Your task to perform on an android device: Search for apple airpods pro on walmart, select the first entry, add it to the cart, then select checkout. Image 0: 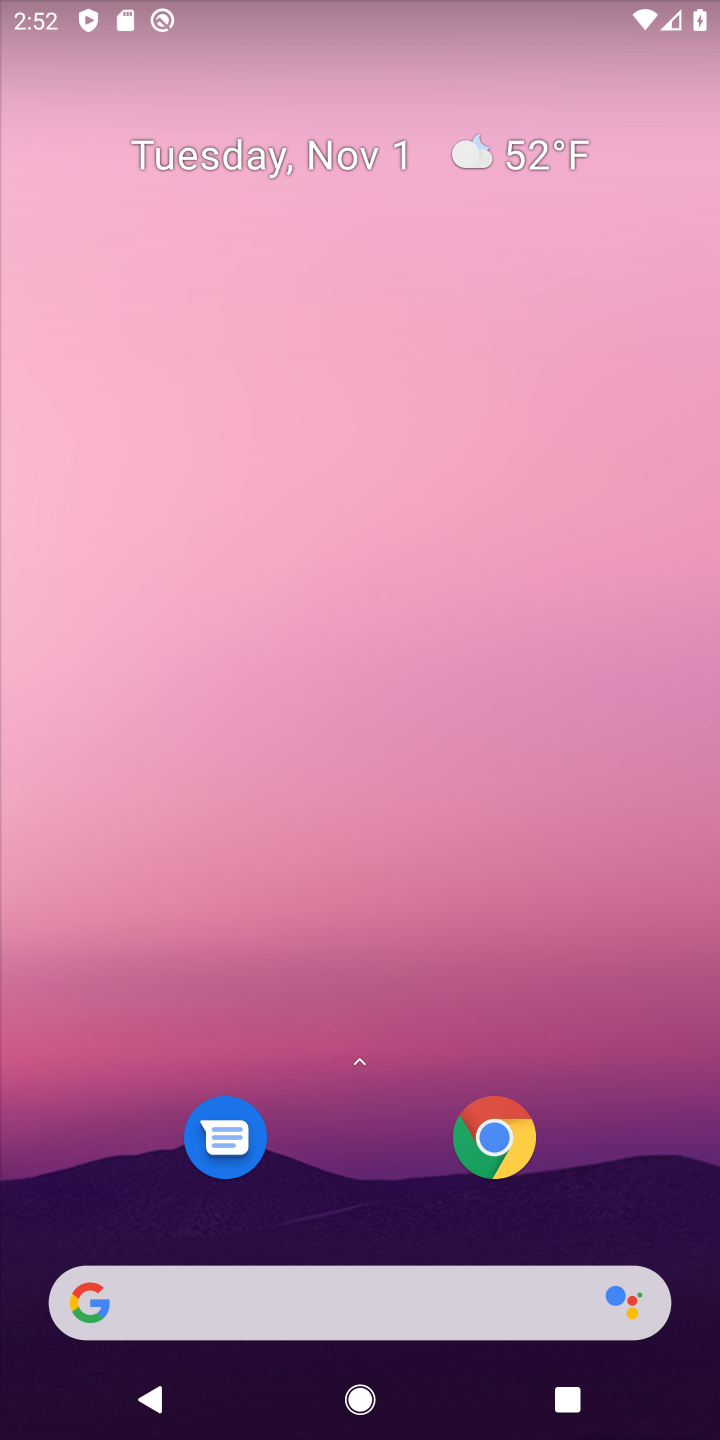
Step 0: click (321, 1337)
Your task to perform on an android device: Search for apple airpods pro on walmart, select the first entry, add it to the cart, then select checkout. Image 1: 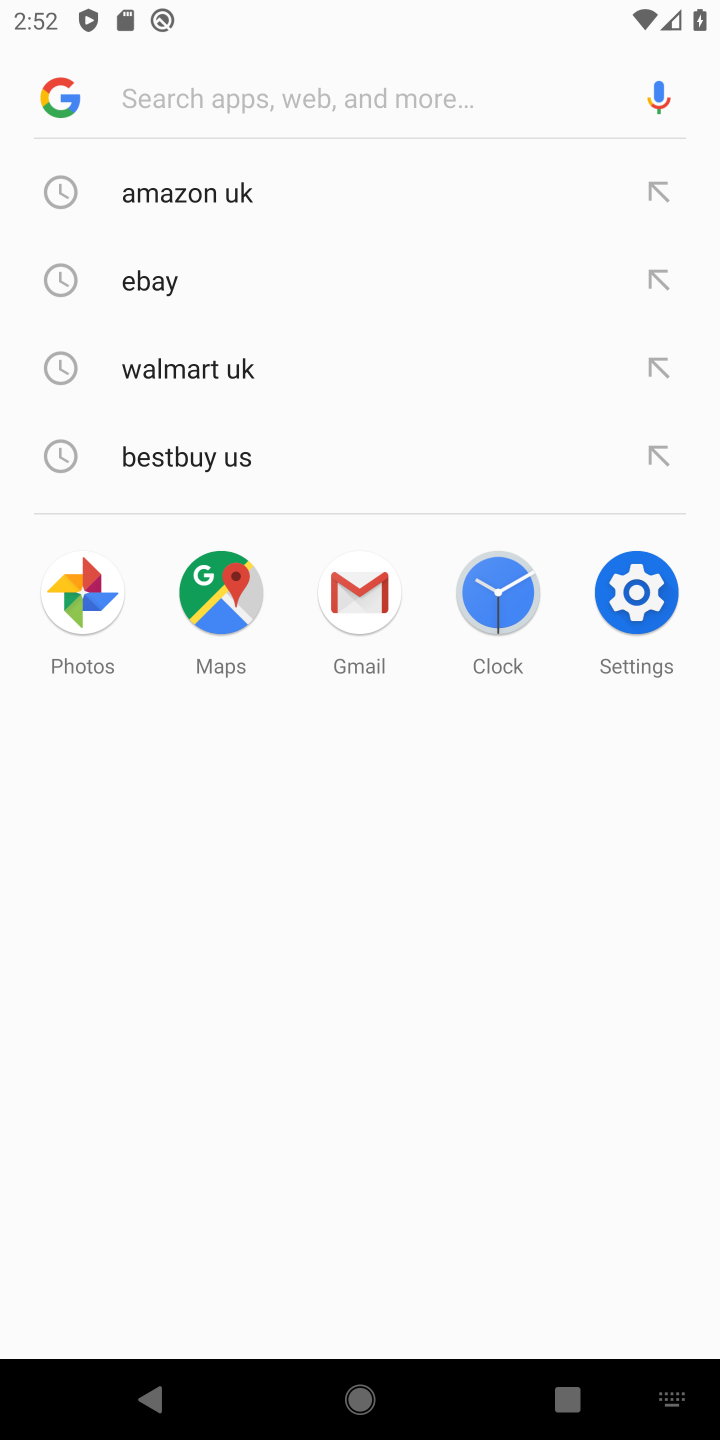
Step 1: click (346, 378)
Your task to perform on an android device: Search for apple airpods pro on walmart, select the first entry, add it to the cart, then select checkout. Image 2: 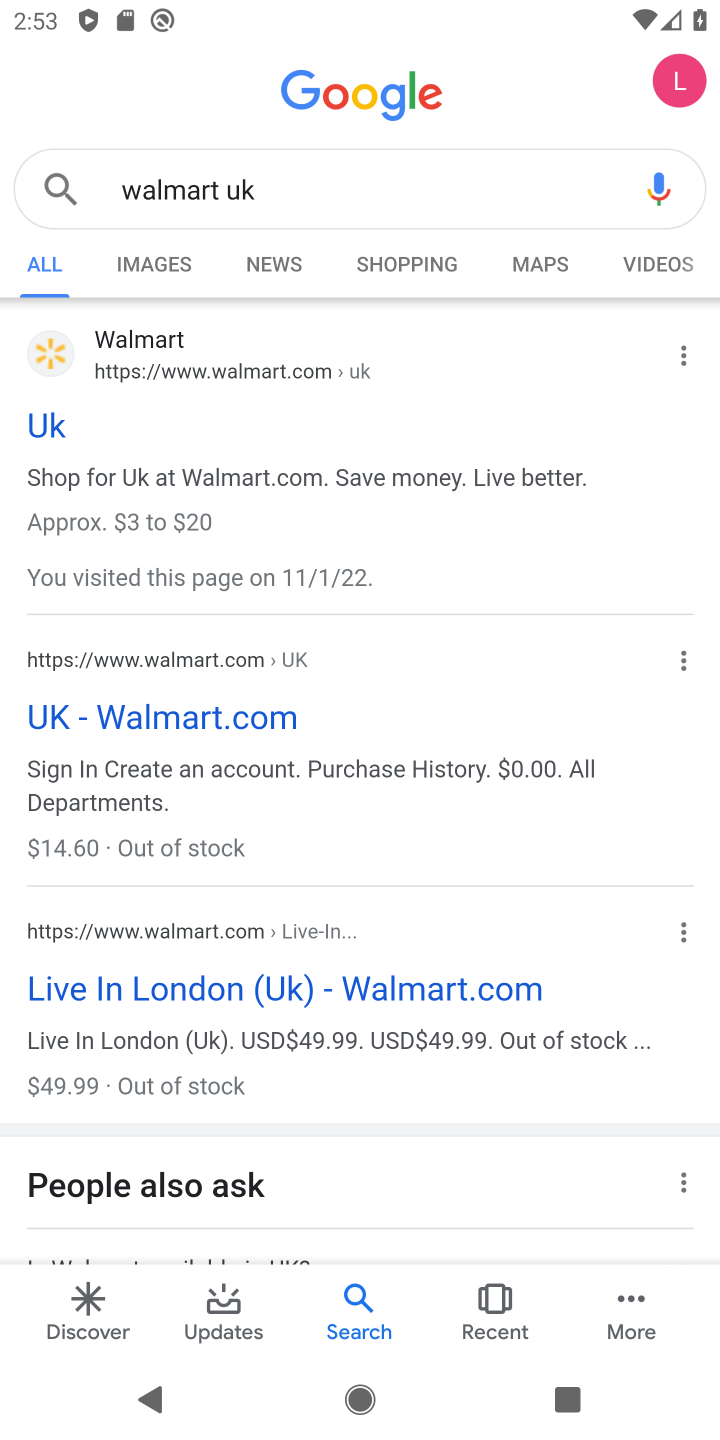
Step 2: click (61, 426)
Your task to perform on an android device: Search for apple airpods pro on walmart, select the first entry, add it to the cart, then select checkout. Image 3: 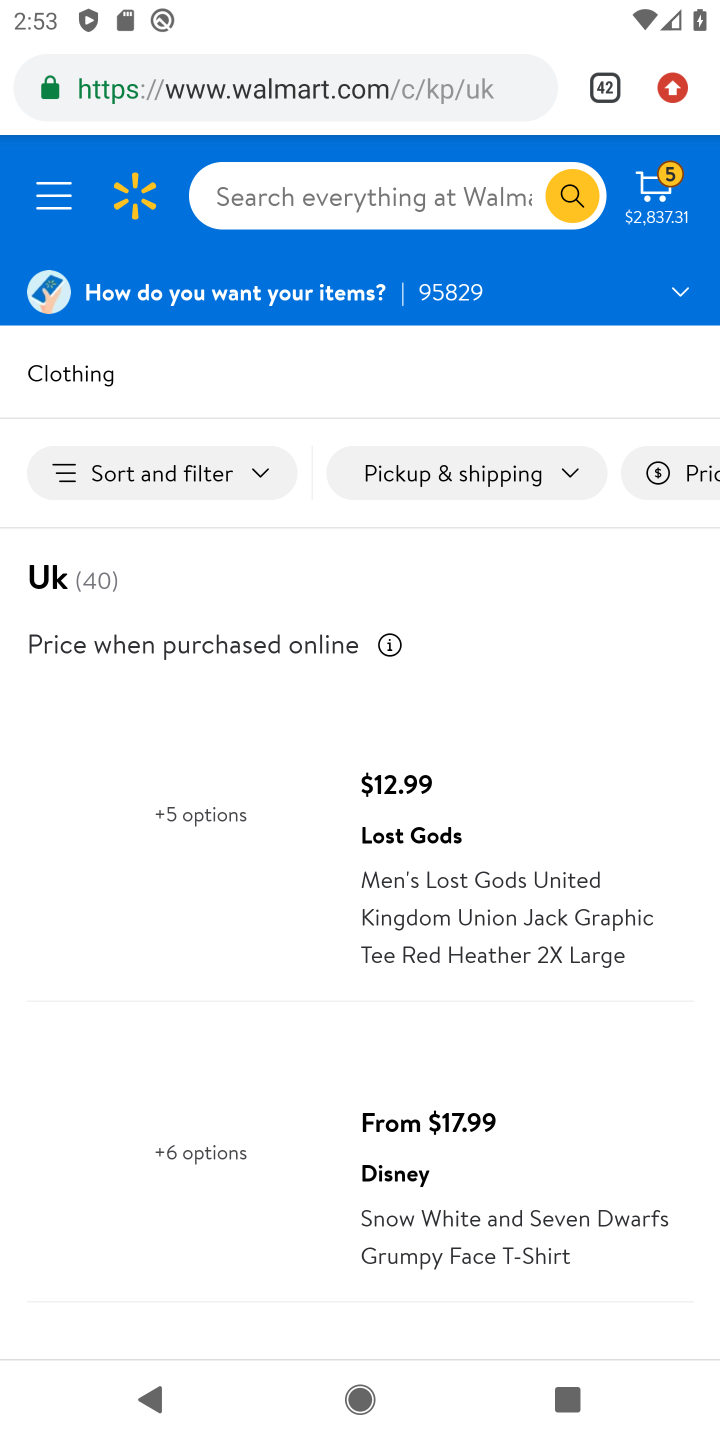
Step 3: click (327, 212)
Your task to perform on an android device: Search for apple airpods pro on walmart, select the first entry, add it to the cart, then select checkout. Image 4: 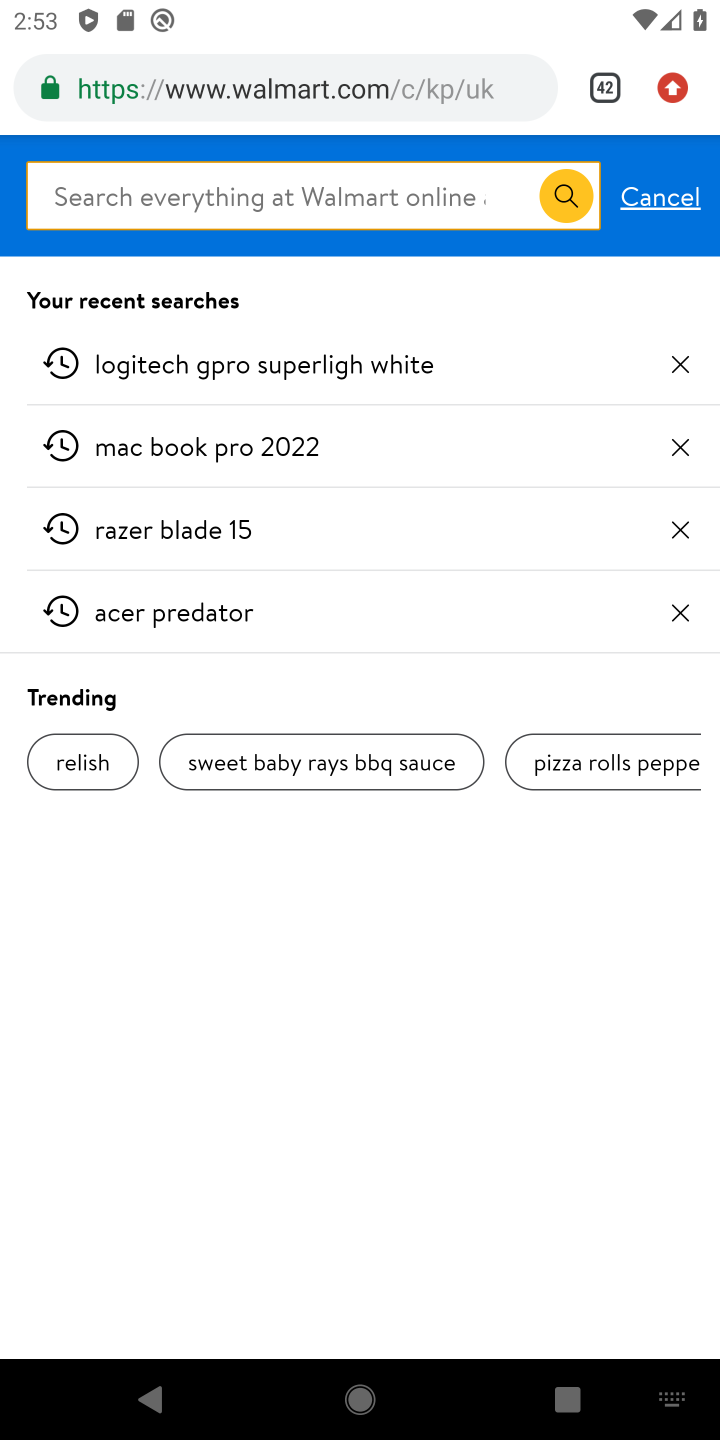
Step 4: type "apple airpod"
Your task to perform on an android device: Search for apple airpods pro on walmart, select the first entry, add it to the cart, then select checkout. Image 5: 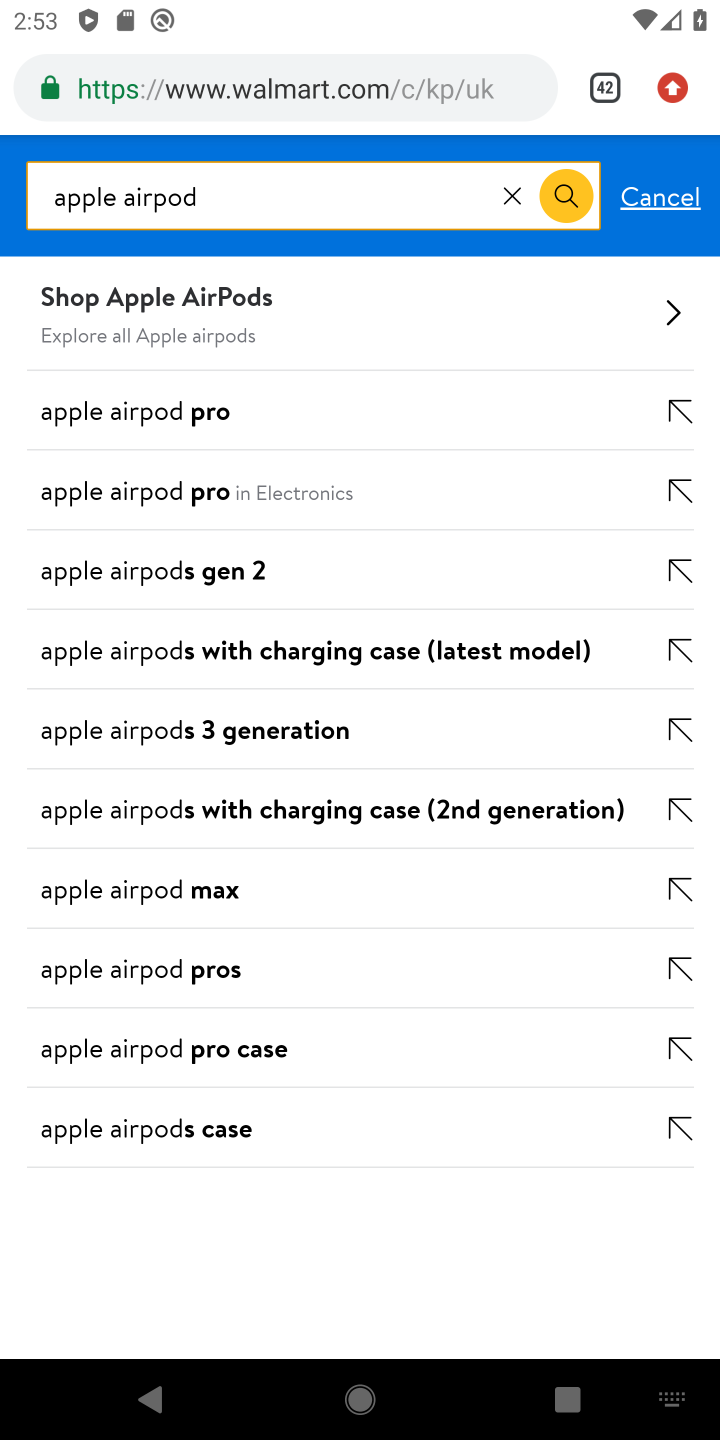
Step 5: click (148, 351)
Your task to perform on an android device: Search for apple airpods pro on walmart, select the first entry, add it to the cart, then select checkout. Image 6: 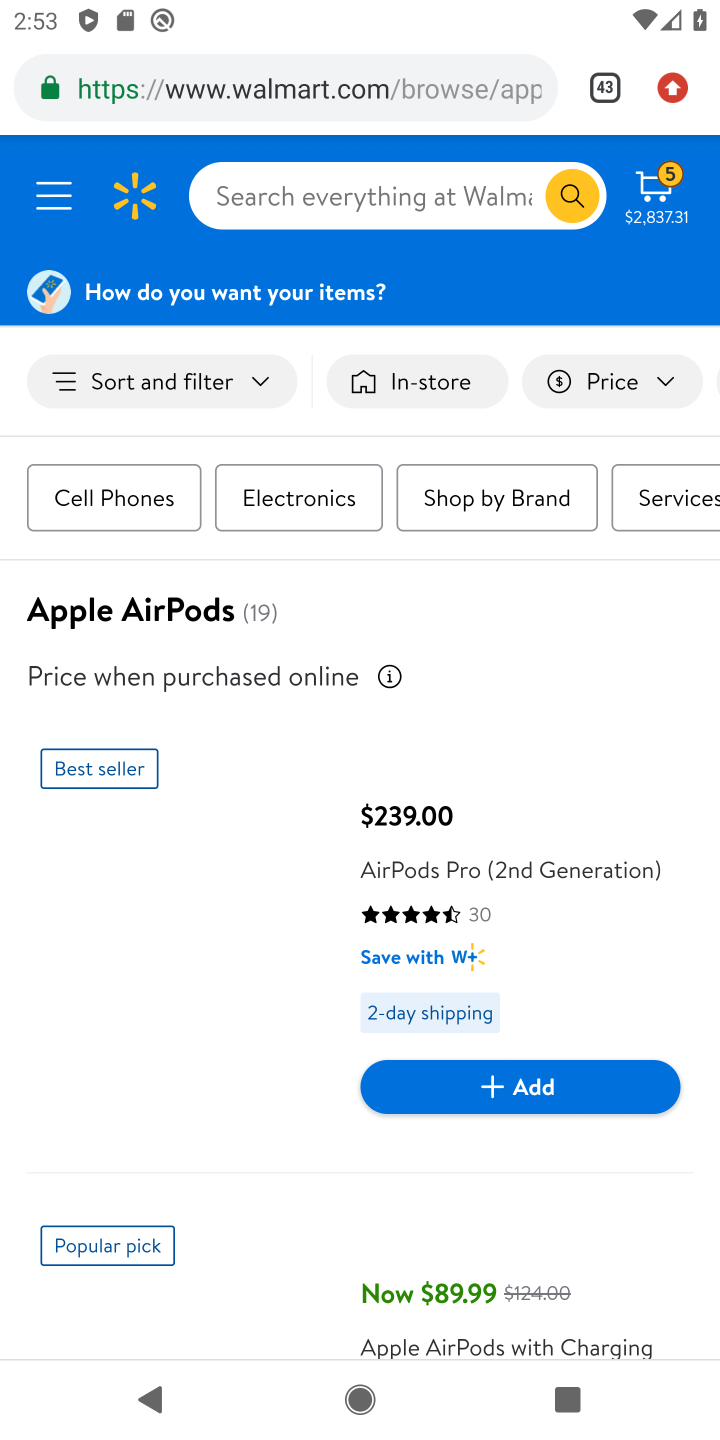
Step 6: click (518, 1094)
Your task to perform on an android device: Search for apple airpods pro on walmart, select the first entry, add it to the cart, then select checkout. Image 7: 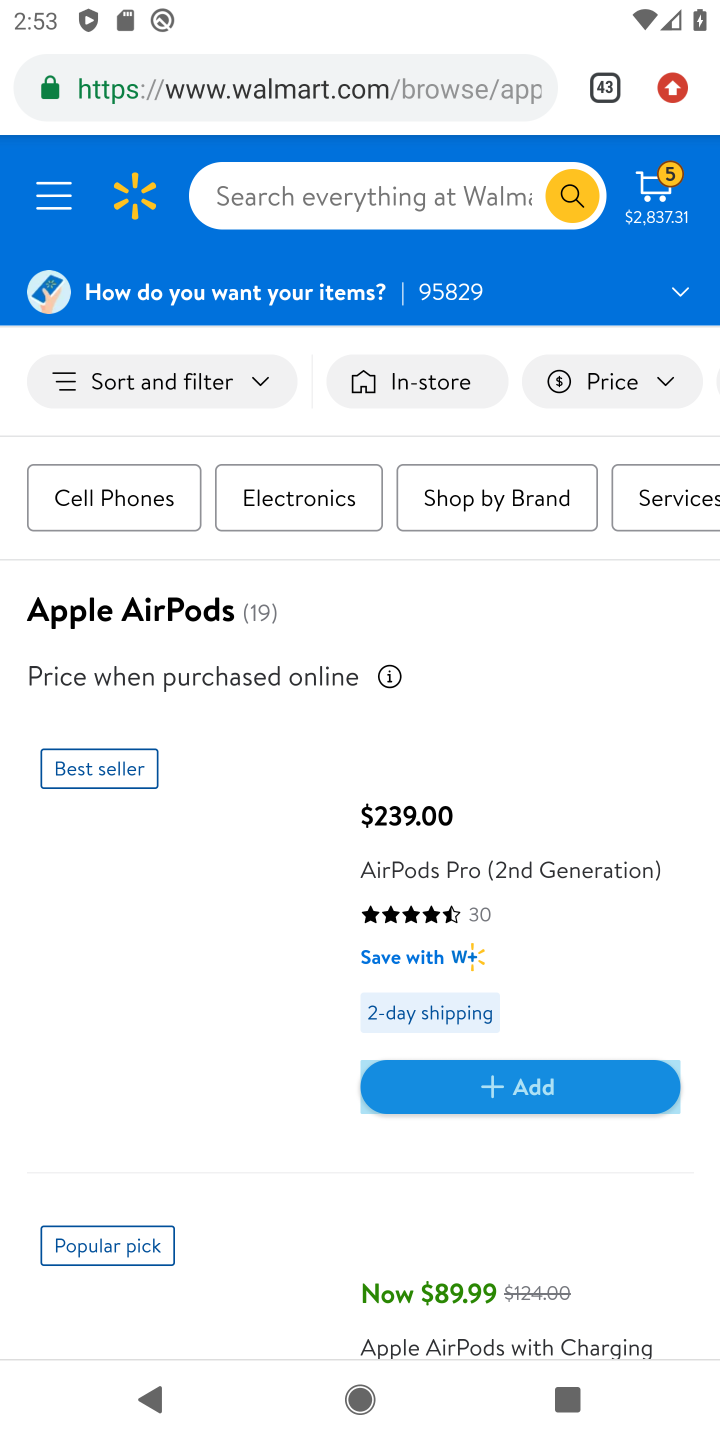
Step 7: task complete